Your task to perform on an android device: Clear all items from cart on amazon. Image 0: 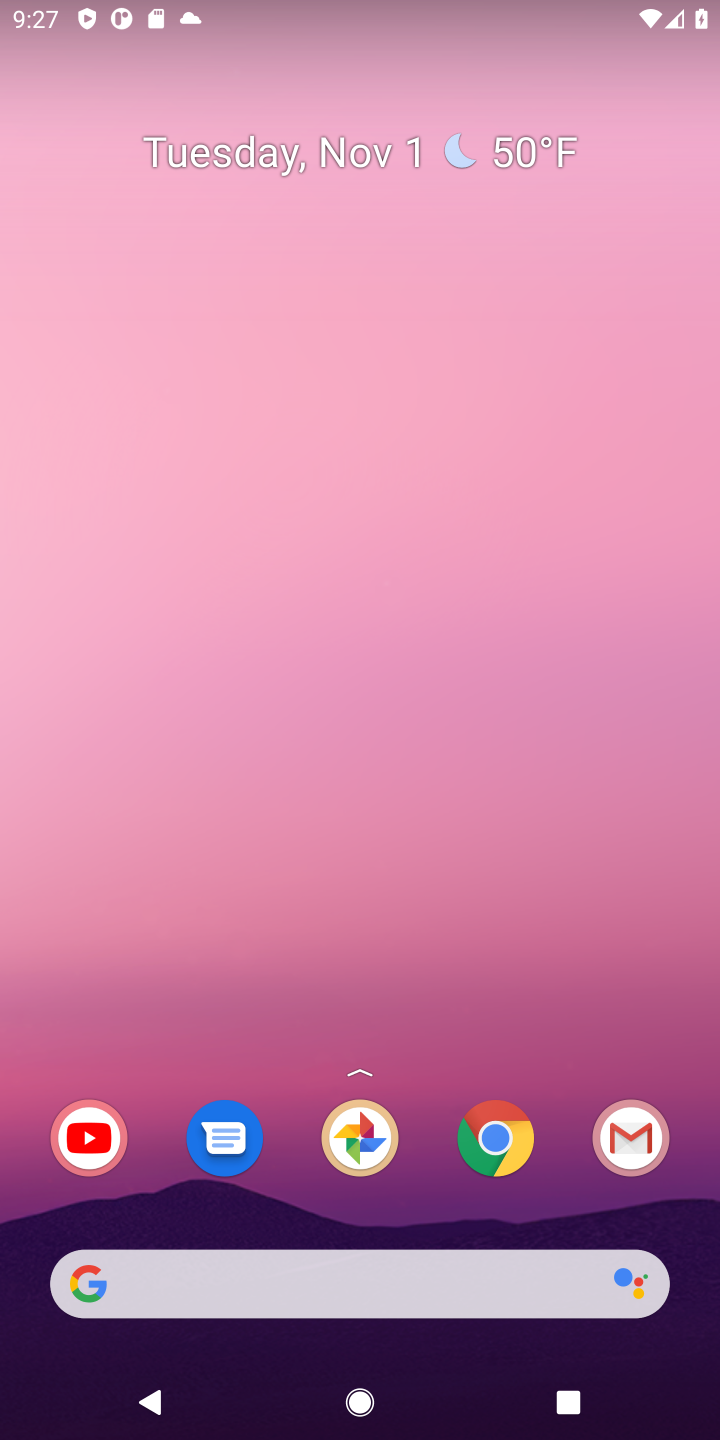
Step 0: click (497, 1140)
Your task to perform on an android device: Clear all items from cart on amazon. Image 1: 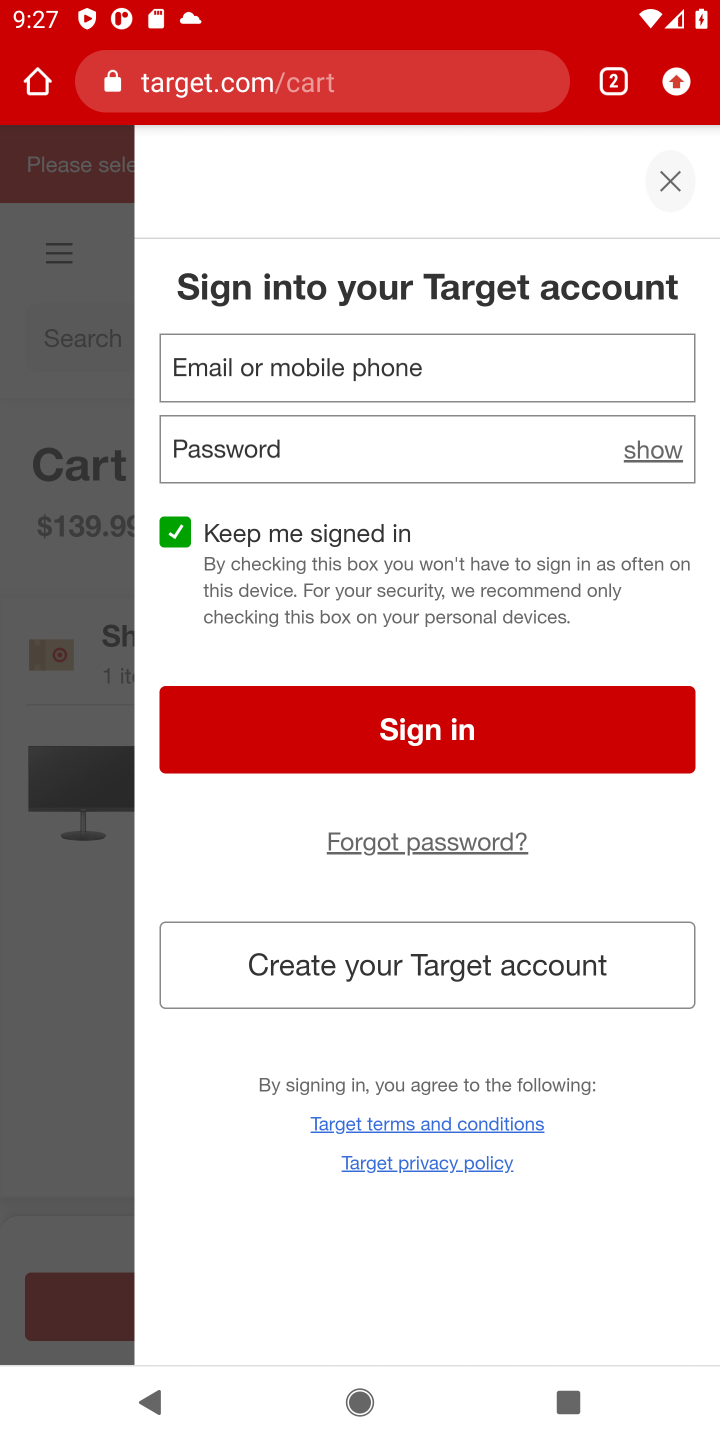
Step 1: click (365, 79)
Your task to perform on an android device: Clear all items from cart on amazon. Image 2: 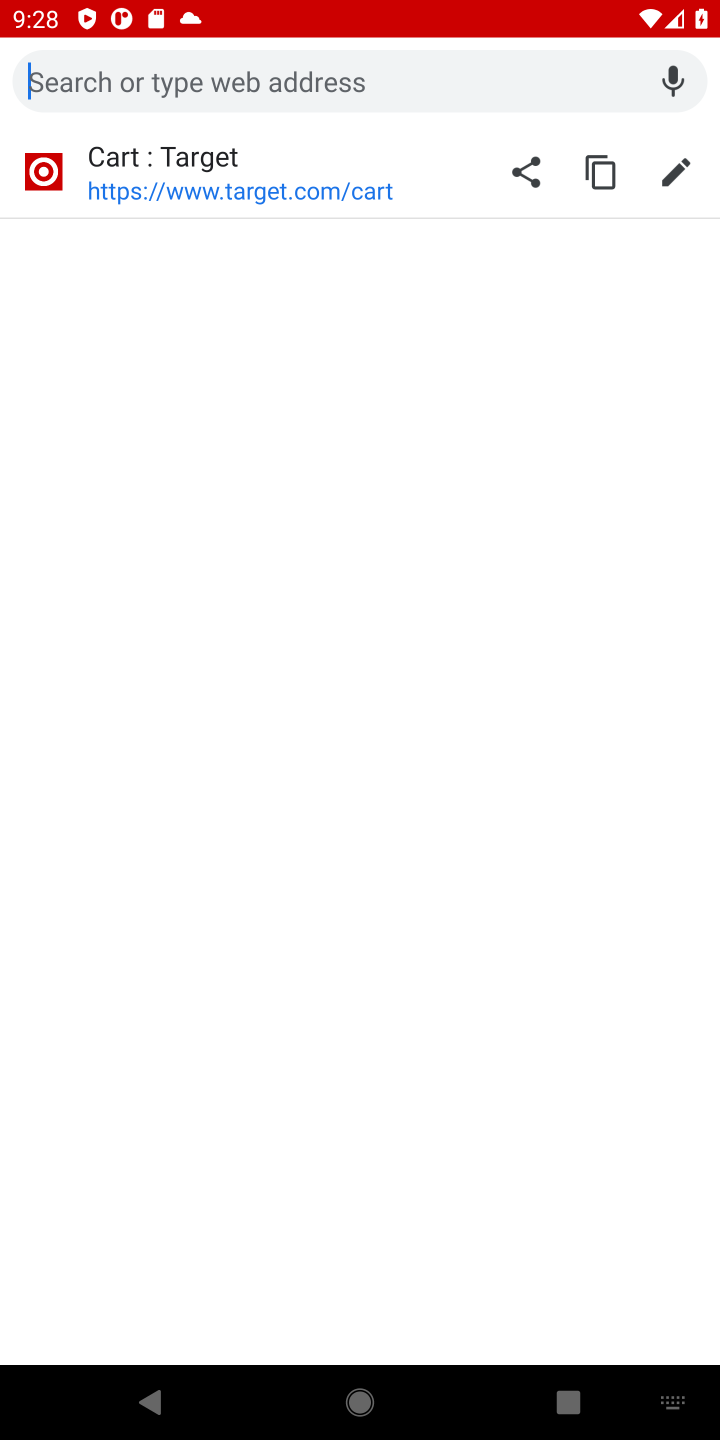
Step 2: type "amazon"
Your task to perform on an android device: Clear all items from cart on amazon. Image 3: 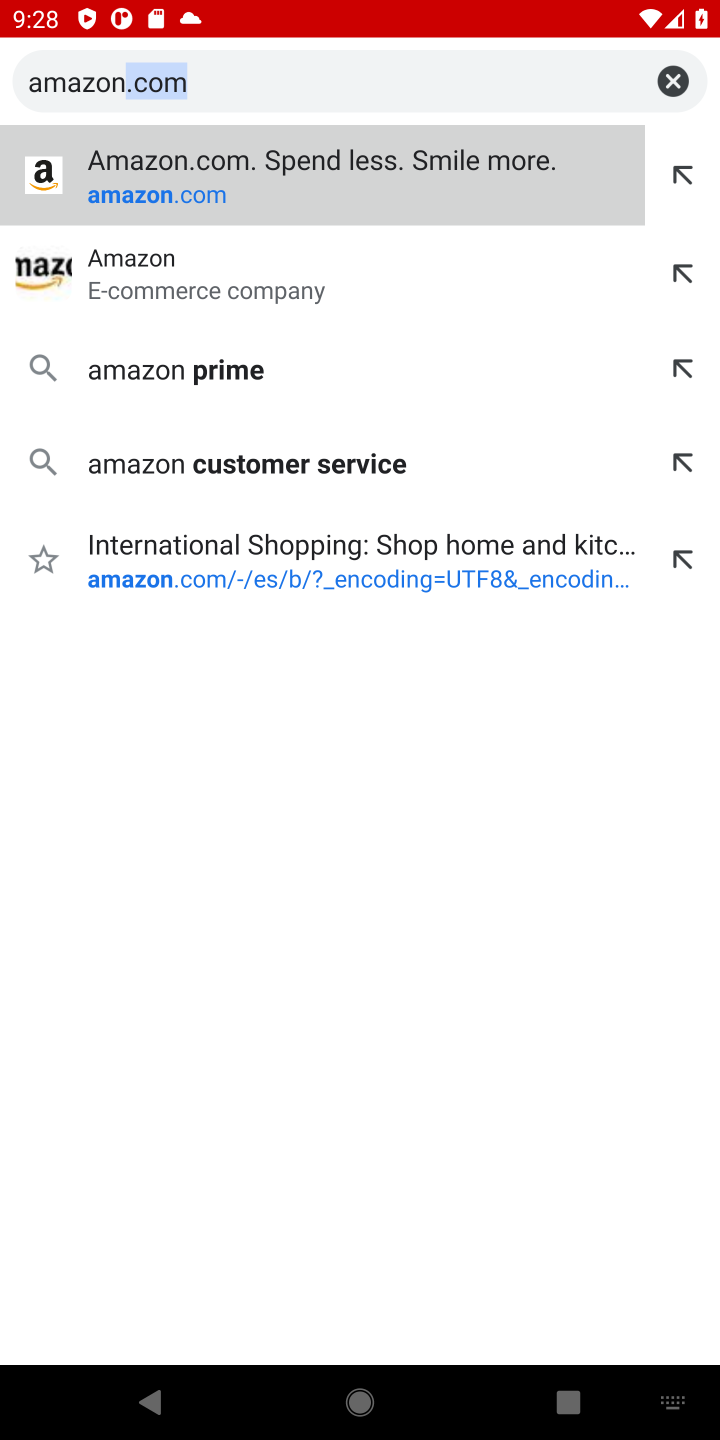
Step 3: click (147, 268)
Your task to perform on an android device: Clear all items from cart on amazon. Image 4: 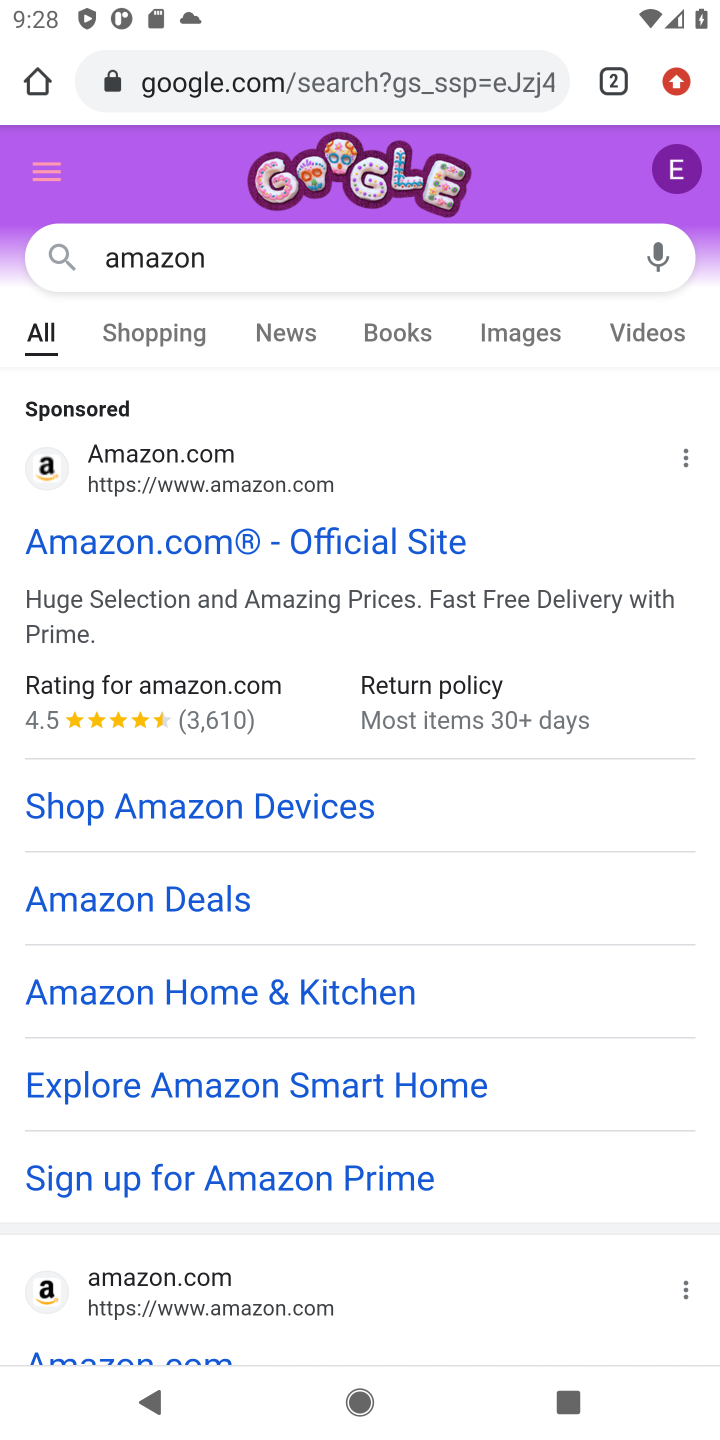
Step 4: click (252, 1344)
Your task to perform on an android device: Clear all items from cart on amazon. Image 5: 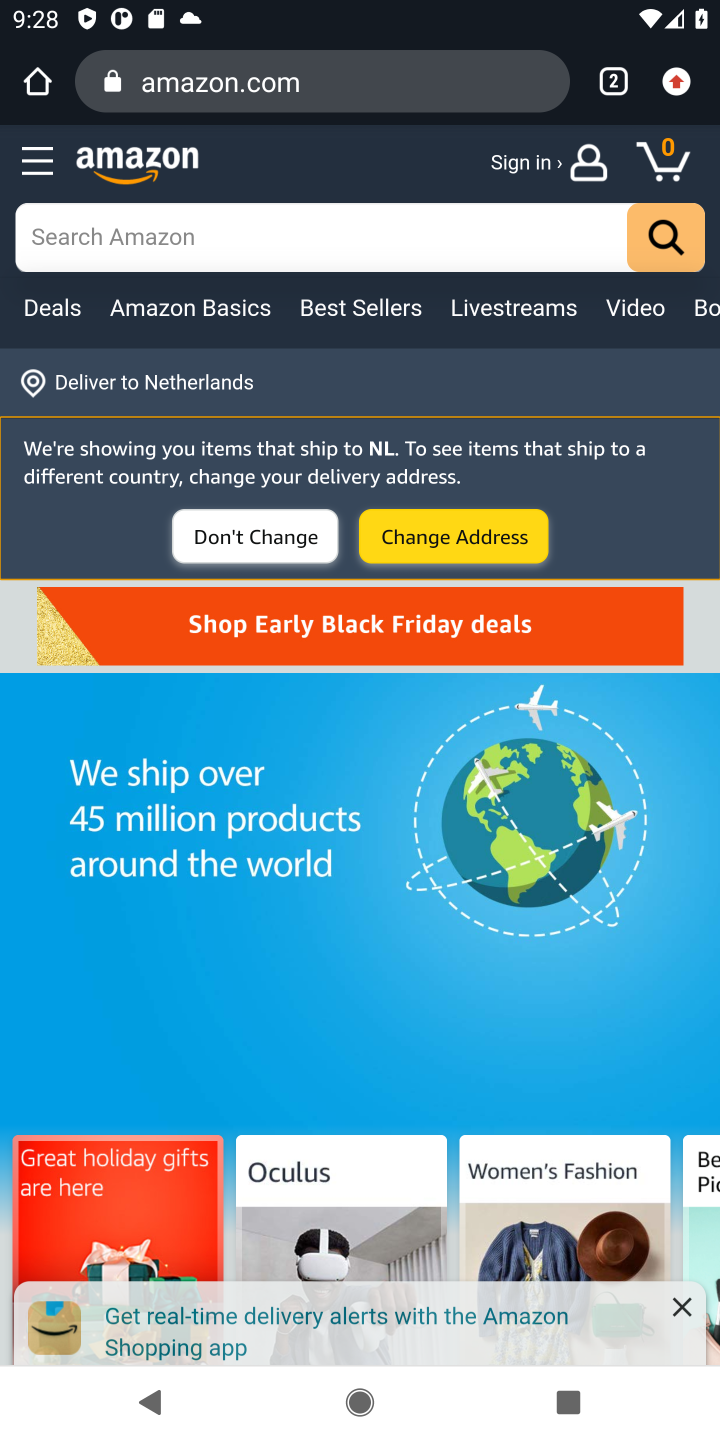
Step 5: click (679, 153)
Your task to perform on an android device: Clear all items from cart on amazon. Image 6: 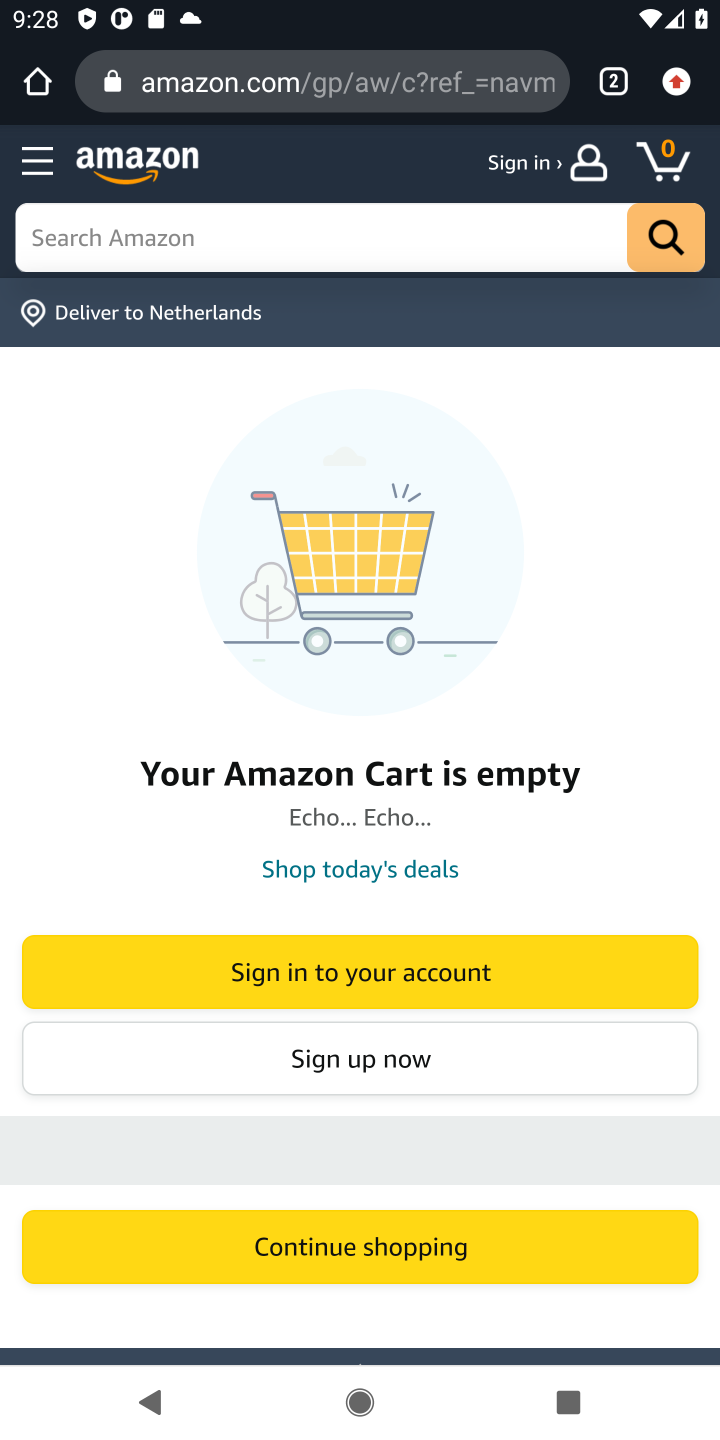
Step 6: task complete